Your task to perform on an android device: Open maps Image 0: 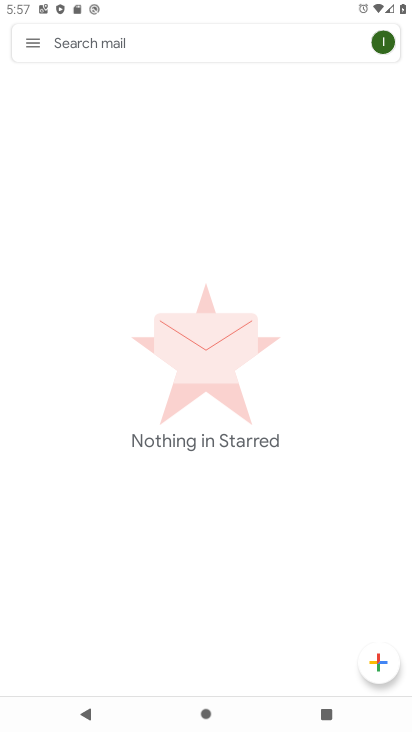
Step 0: press home button
Your task to perform on an android device: Open maps Image 1: 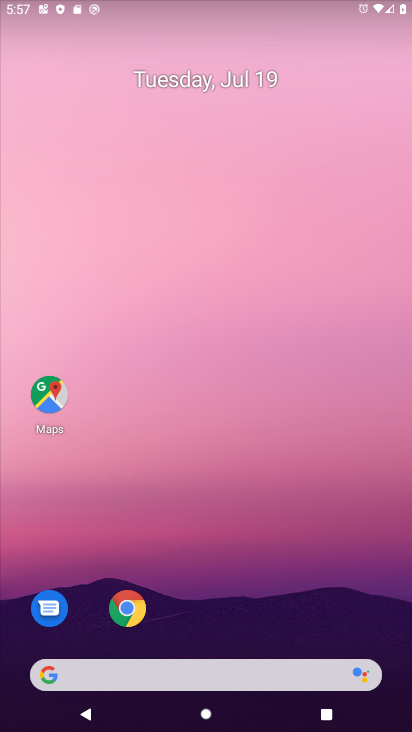
Step 1: drag from (283, 520) to (258, 19)
Your task to perform on an android device: Open maps Image 2: 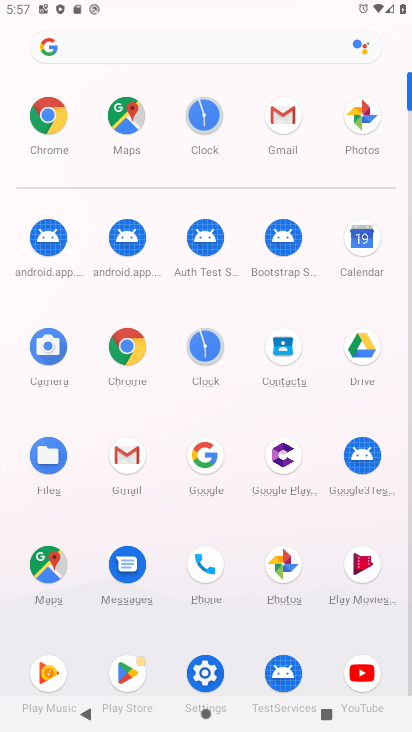
Step 2: click (56, 561)
Your task to perform on an android device: Open maps Image 3: 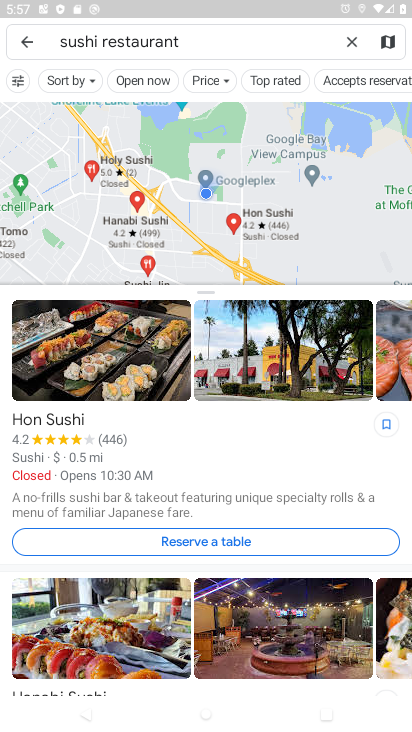
Step 3: task complete